Your task to perform on an android device: Open Google Maps and go to "Timeline" Image 0: 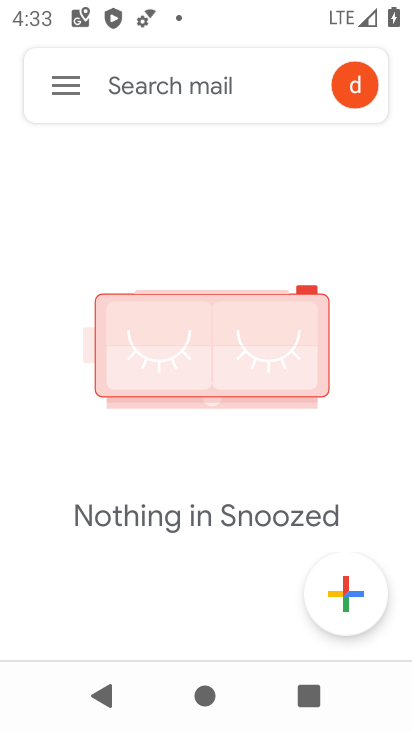
Step 0: press home button
Your task to perform on an android device: Open Google Maps and go to "Timeline" Image 1: 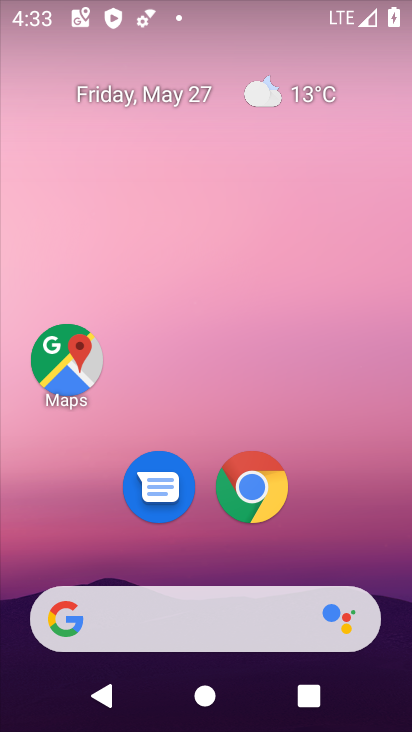
Step 1: drag from (315, 406) to (309, 101)
Your task to perform on an android device: Open Google Maps and go to "Timeline" Image 2: 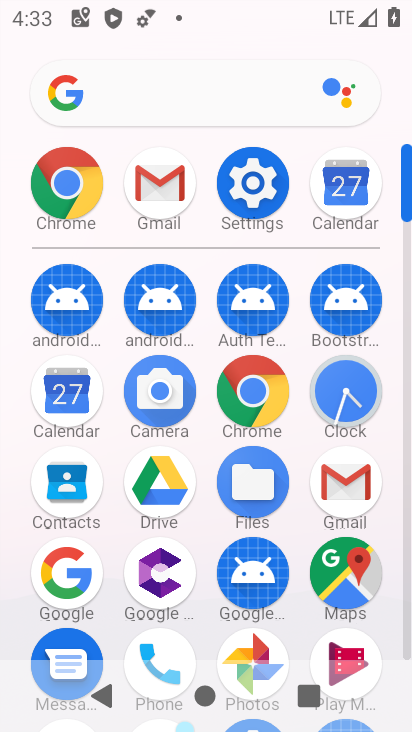
Step 2: click (355, 566)
Your task to perform on an android device: Open Google Maps and go to "Timeline" Image 3: 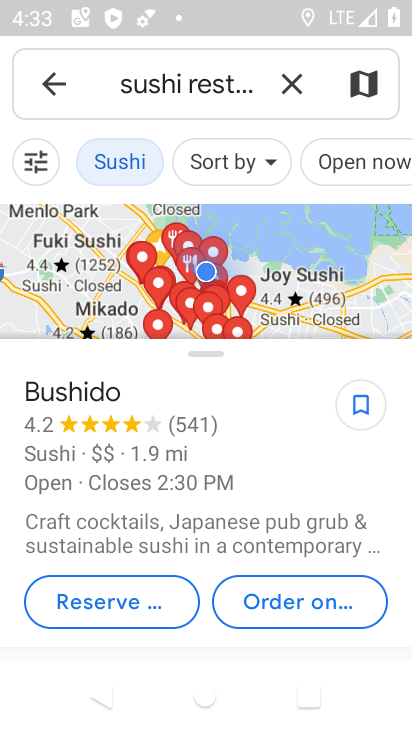
Step 3: click (42, 85)
Your task to perform on an android device: Open Google Maps and go to "Timeline" Image 4: 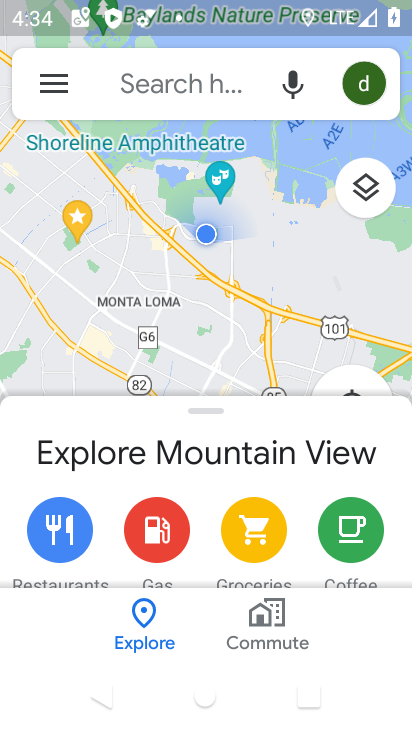
Step 4: click (47, 84)
Your task to perform on an android device: Open Google Maps and go to "Timeline" Image 5: 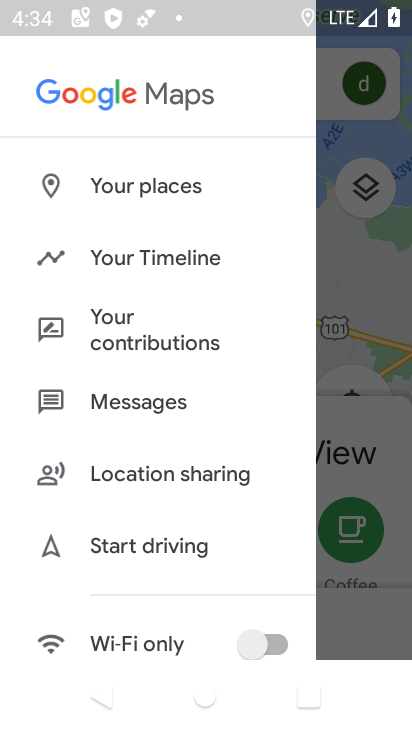
Step 5: click (106, 268)
Your task to perform on an android device: Open Google Maps and go to "Timeline" Image 6: 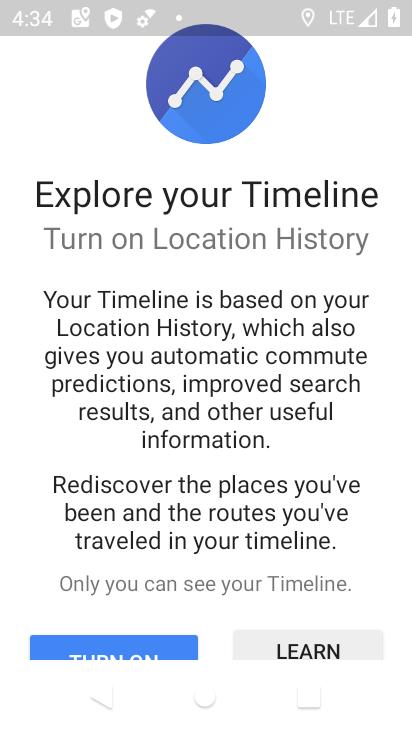
Step 6: click (127, 645)
Your task to perform on an android device: Open Google Maps and go to "Timeline" Image 7: 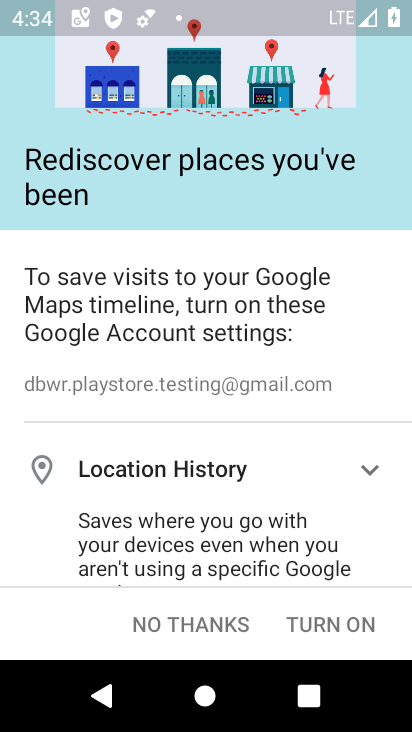
Step 7: click (290, 622)
Your task to perform on an android device: Open Google Maps and go to "Timeline" Image 8: 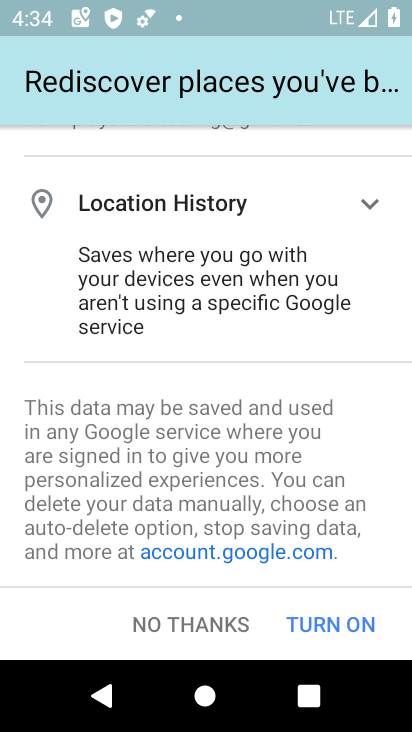
Step 8: click (336, 620)
Your task to perform on an android device: Open Google Maps and go to "Timeline" Image 9: 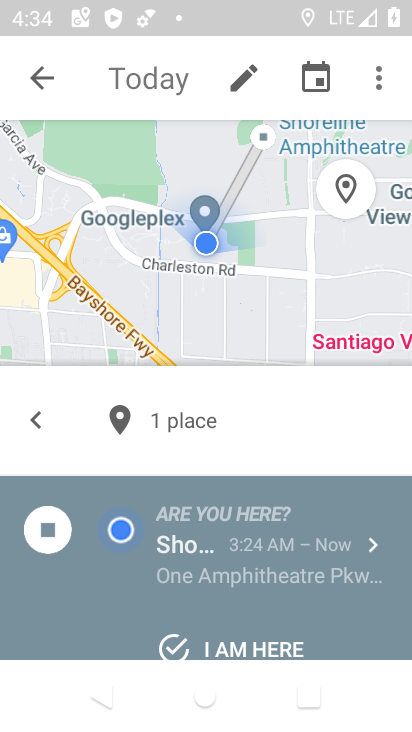
Step 9: task complete